Your task to perform on an android device: empty trash in google photos Image 0: 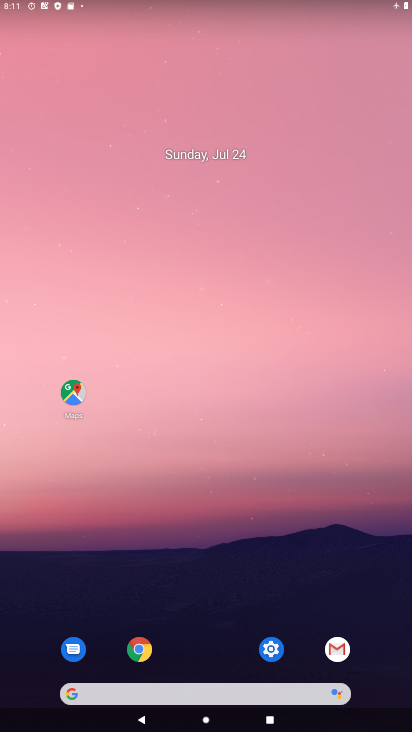
Step 0: drag from (257, 697) to (232, 224)
Your task to perform on an android device: empty trash in google photos Image 1: 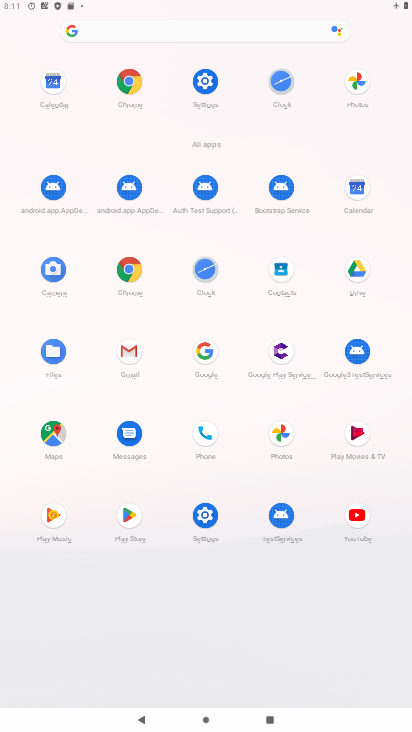
Step 1: click (275, 428)
Your task to perform on an android device: empty trash in google photos Image 2: 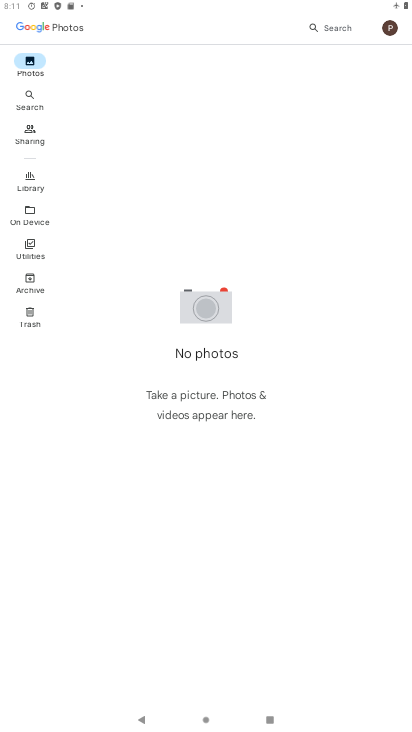
Step 2: click (314, 23)
Your task to perform on an android device: empty trash in google photos Image 3: 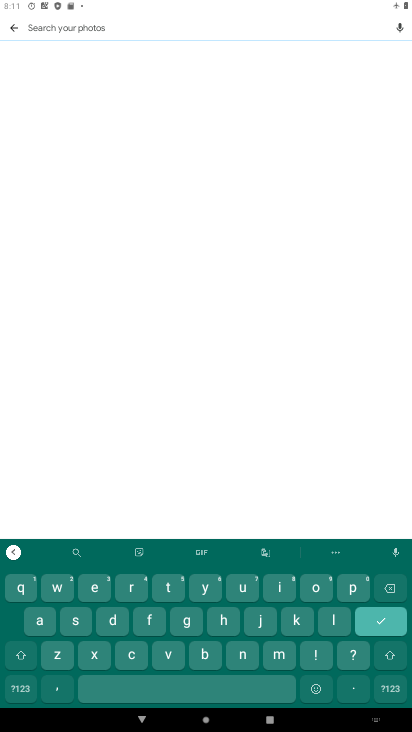
Step 3: click (166, 591)
Your task to perform on an android device: empty trash in google photos Image 4: 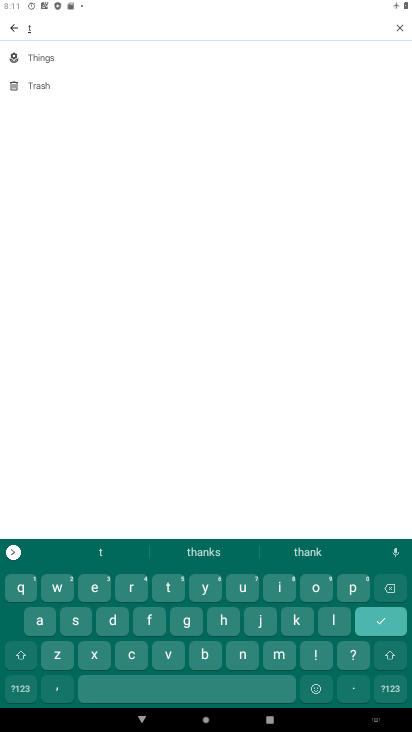
Step 4: click (43, 84)
Your task to perform on an android device: empty trash in google photos Image 5: 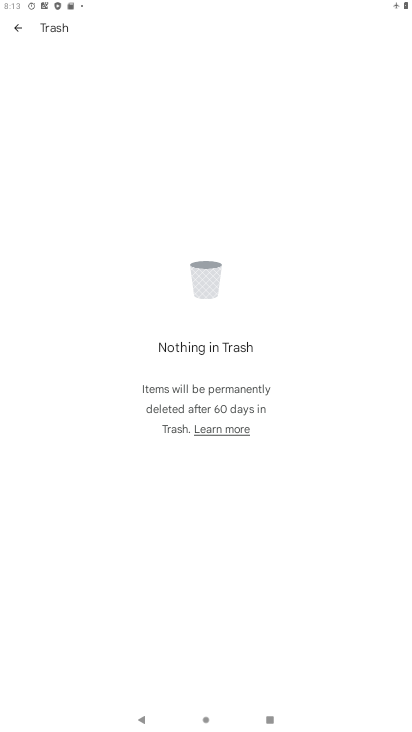
Step 5: task complete